Your task to perform on an android device: check storage Image 0: 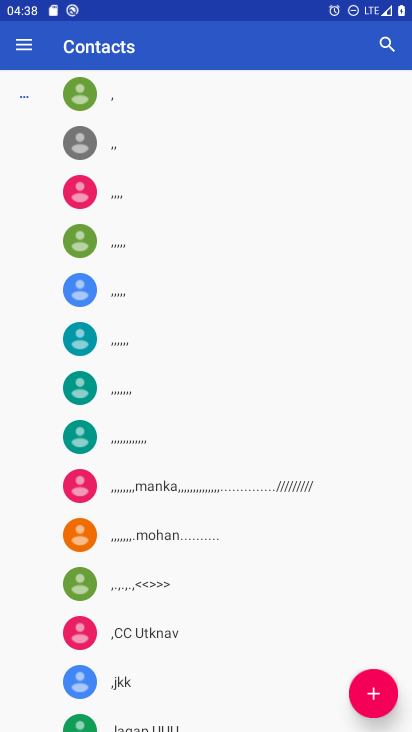
Step 0: press back button
Your task to perform on an android device: check storage Image 1: 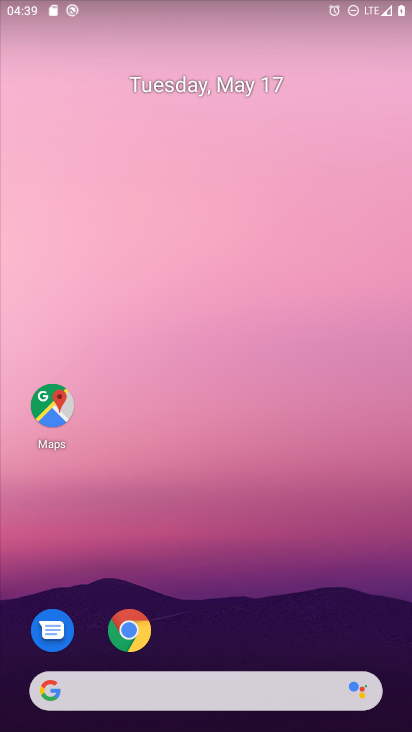
Step 1: drag from (217, 597) to (264, 43)
Your task to perform on an android device: check storage Image 2: 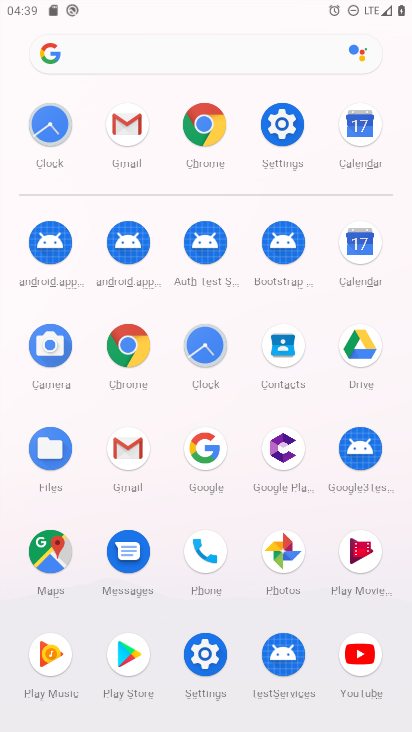
Step 2: click (283, 126)
Your task to perform on an android device: check storage Image 3: 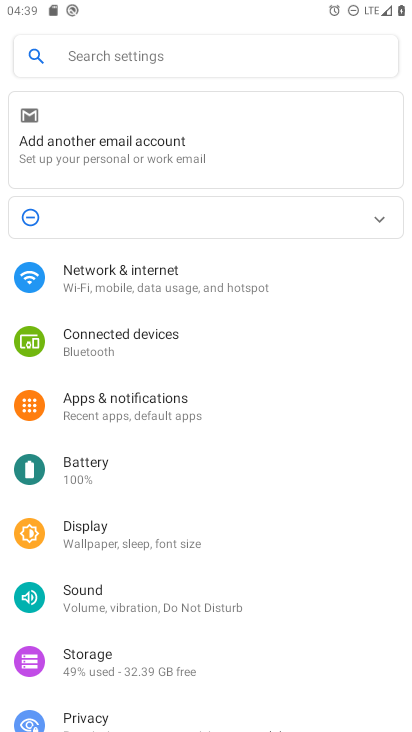
Step 3: click (90, 662)
Your task to perform on an android device: check storage Image 4: 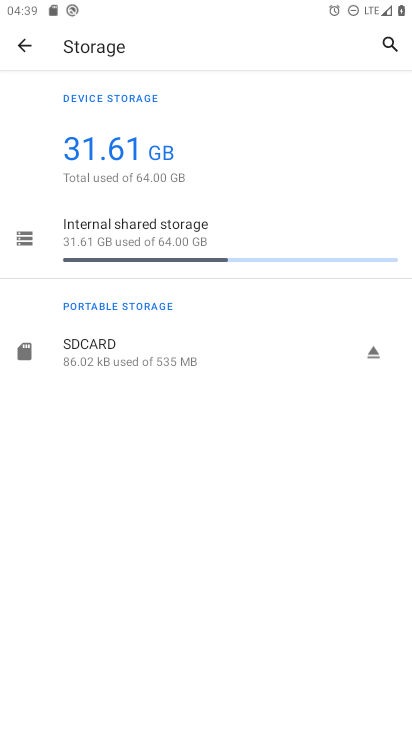
Step 4: task complete